Your task to perform on an android device: Check the weather Image 0: 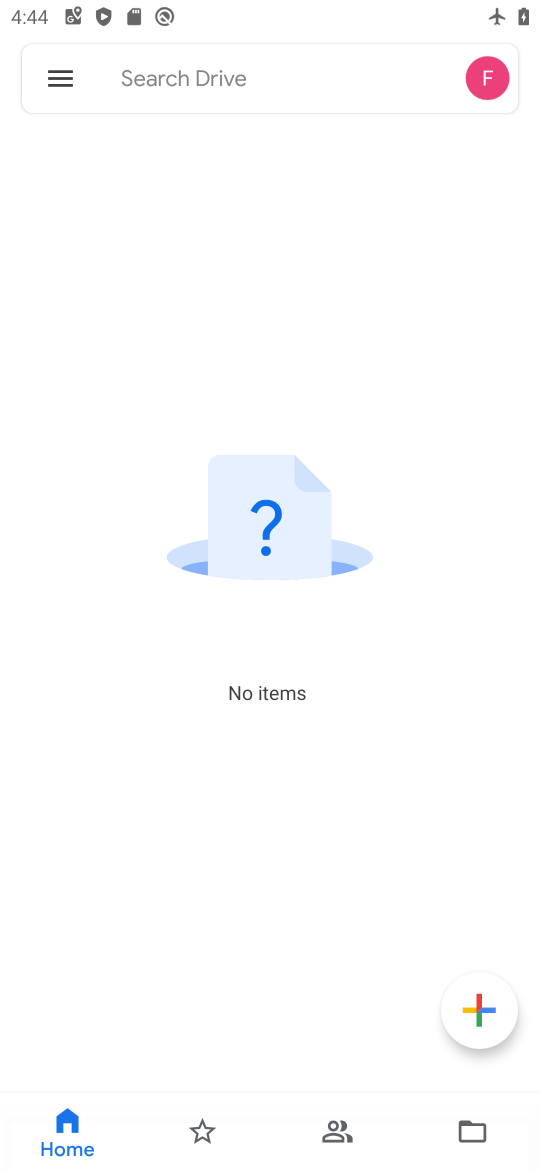
Step 0: press home button
Your task to perform on an android device: Check the weather Image 1: 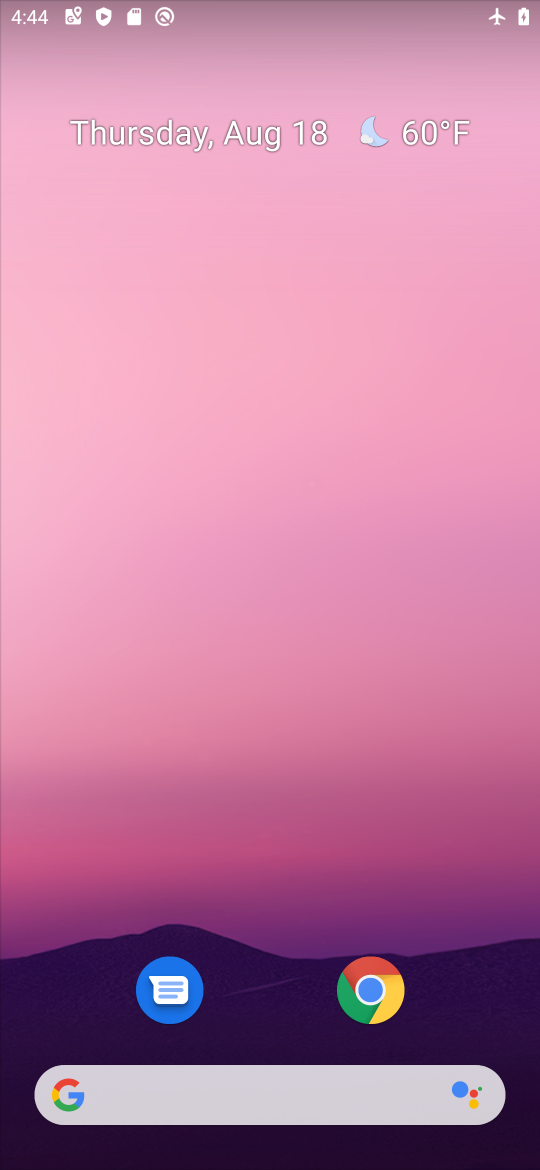
Step 1: click (432, 129)
Your task to perform on an android device: Check the weather Image 2: 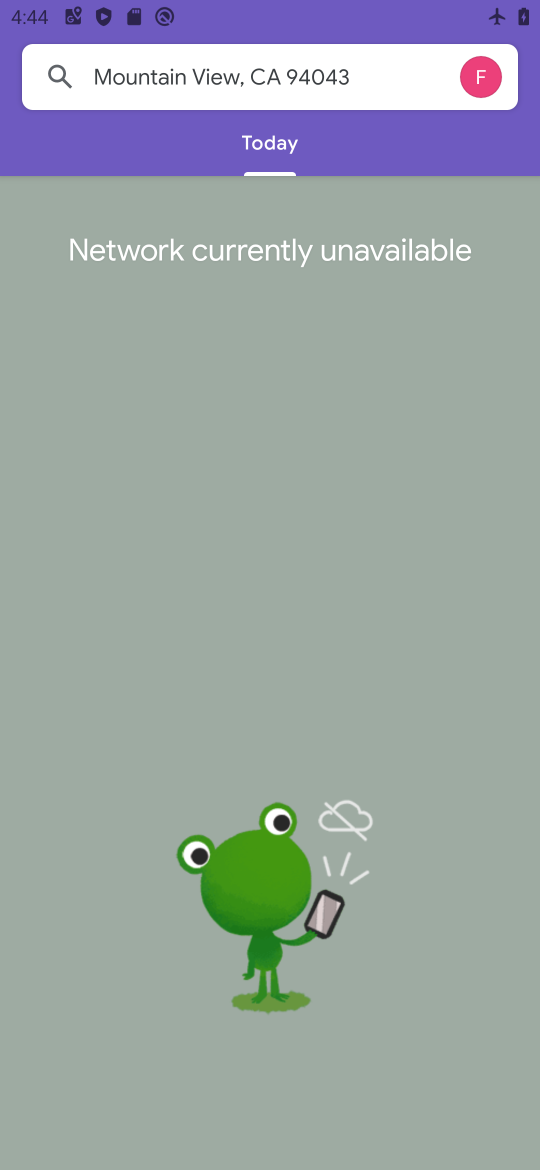
Step 2: task complete